Your task to perform on an android device: turn on notifications settings in the gmail app Image 0: 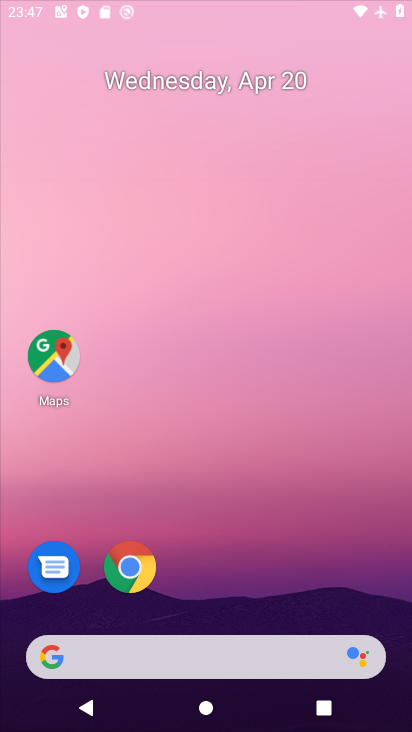
Step 0: drag from (272, 568) to (277, 243)
Your task to perform on an android device: turn on notifications settings in the gmail app Image 1: 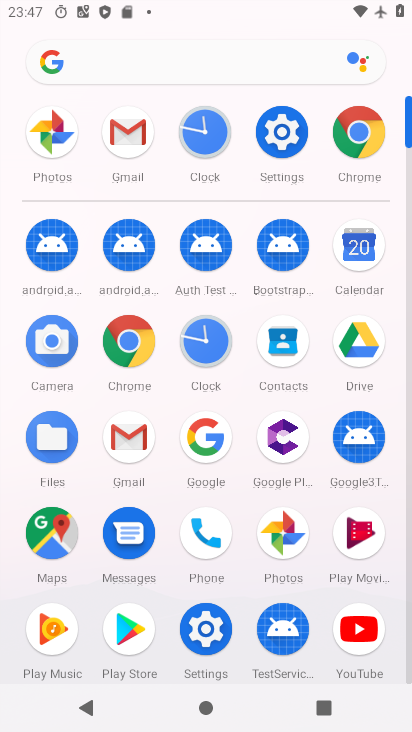
Step 1: click (135, 441)
Your task to perform on an android device: turn on notifications settings in the gmail app Image 2: 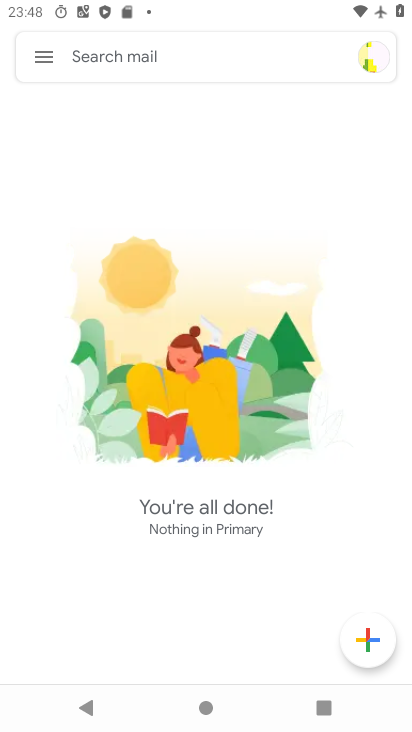
Step 2: click (46, 63)
Your task to perform on an android device: turn on notifications settings in the gmail app Image 3: 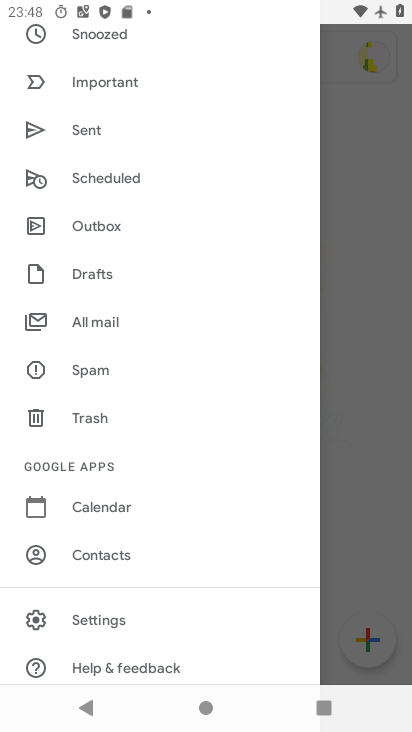
Step 3: click (119, 616)
Your task to perform on an android device: turn on notifications settings in the gmail app Image 4: 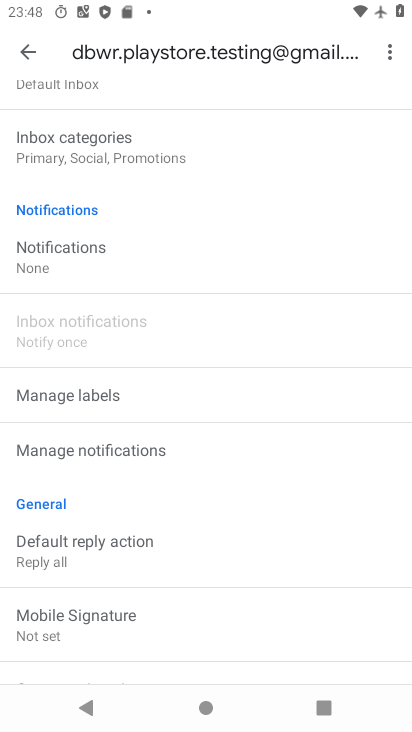
Step 4: click (134, 267)
Your task to perform on an android device: turn on notifications settings in the gmail app Image 5: 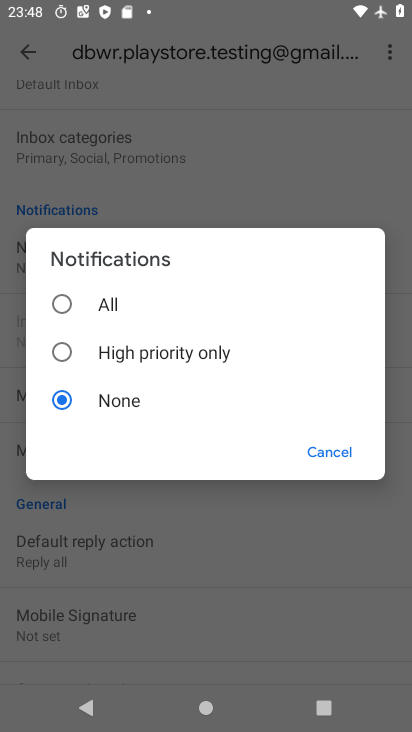
Step 5: click (113, 302)
Your task to perform on an android device: turn on notifications settings in the gmail app Image 6: 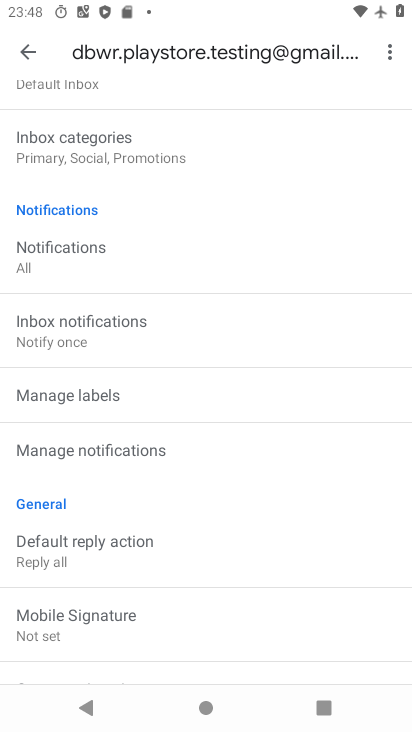
Step 6: task complete